Your task to perform on an android device: Open Yahoo.com Image 0: 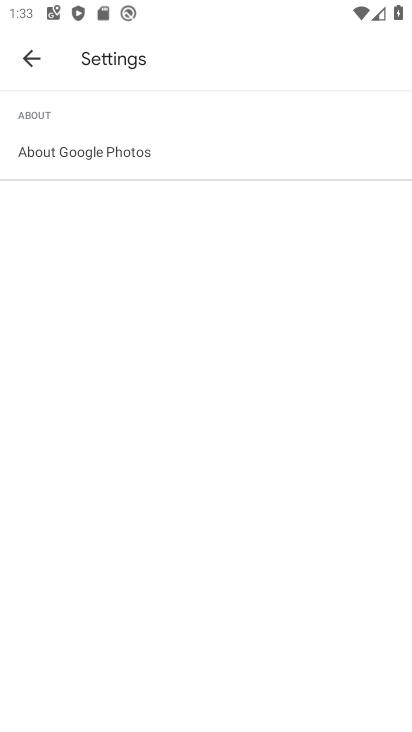
Step 0: press home button
Your task to perform on an android device: Open Yahoo.com Image 1: 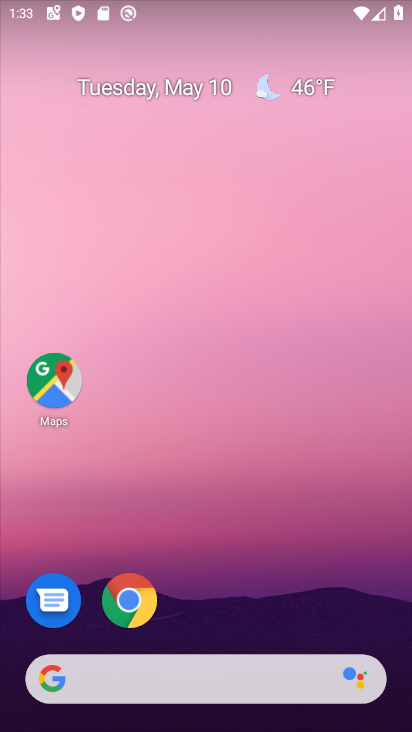
Step 1: click (136, 604)
Your task to perform on an android device: Open Yahoo.com Image 2: 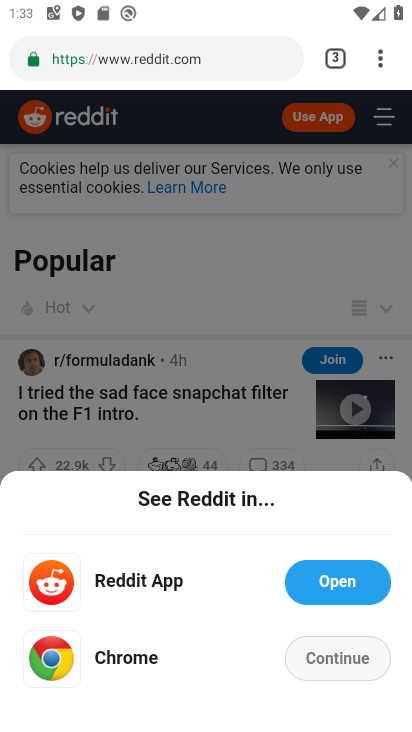
Step 2: drag from (385, 70) to (210, 116)
Your task to perform on an android device: Open Yahoo.com Image 3: 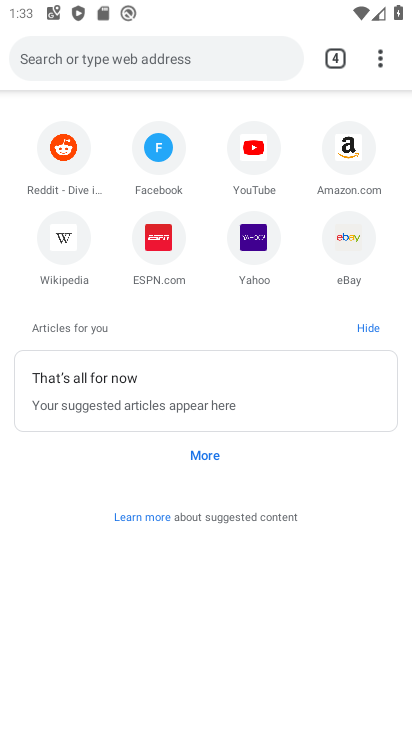
Step 3: click (253, 235)
Your task to perform on an android device: Open Yahoo.com Image 4: 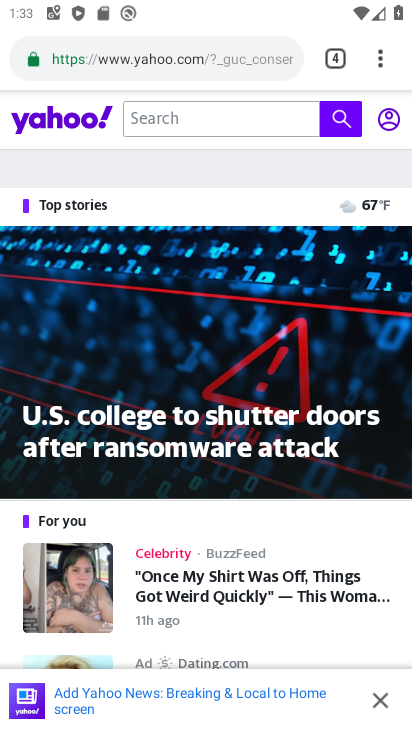
Step 4: task complete